Your task to perform on an android device: Open Google Chrome and open the bookmarks view Image 0: 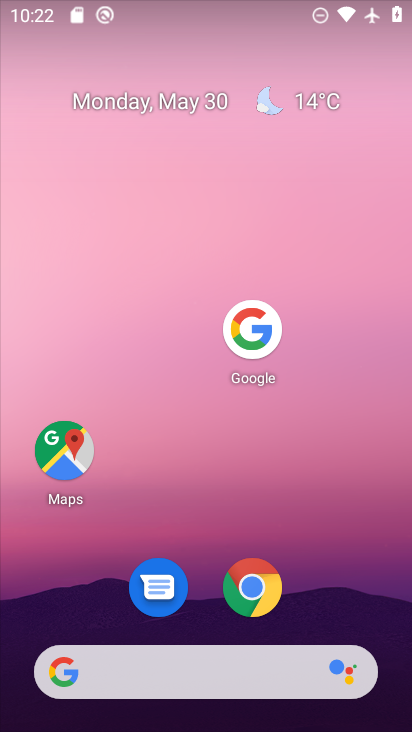
Step 0: press home button
Your task to perform on an android device: Open Google Chrome and open the bookmarks view Image 1: 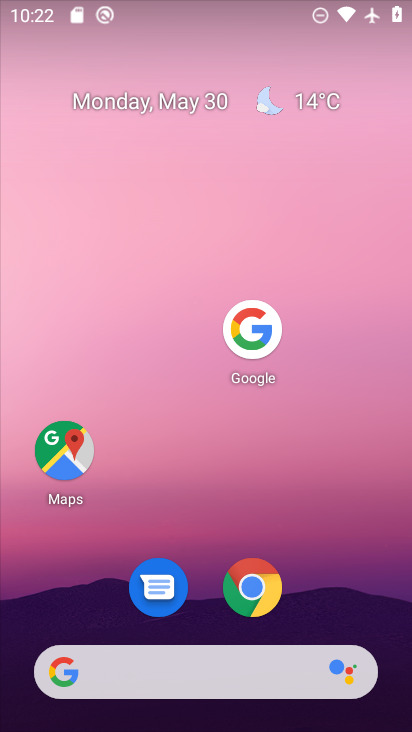
Step 1: click (260, 595)
Your task to perform on an android device: Open Google Chrome and open the bookmarks view Image 2: 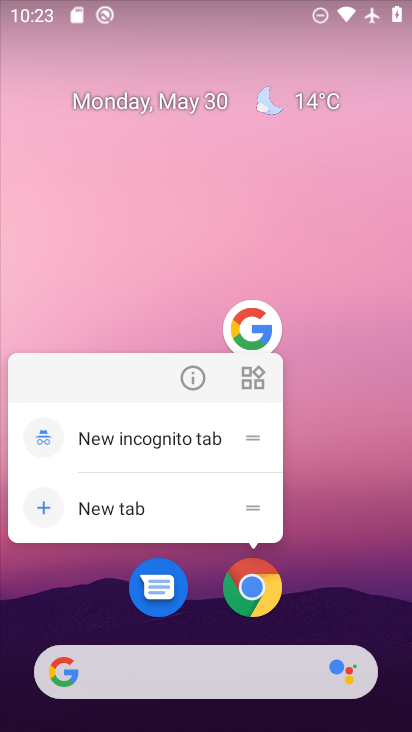
Step 2: click (246, 599)
Your task to perform on an android device: Open Google Chrome and open the bookmarks view Image 3: 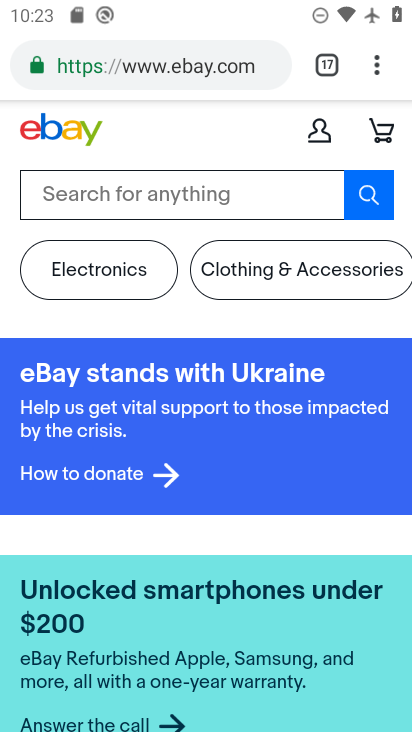
Step 3: task complete